Your task to perform on an android device: What is the news today? Image 0: 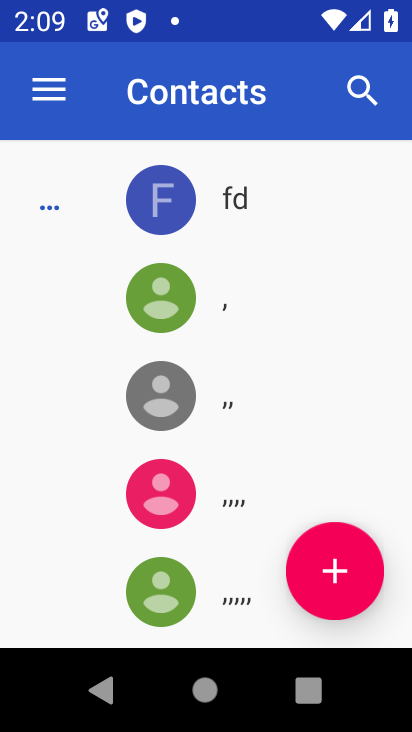
Step 0: press home button
Your task to perform on an android device: What is the news today? Image 1: 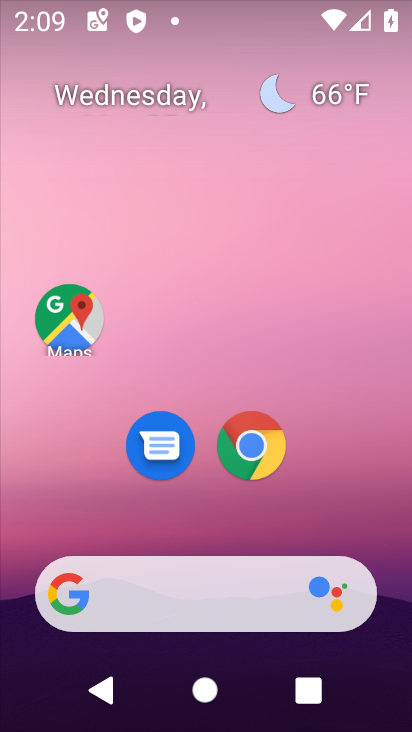
Step 1: click (182, 589)
Your task to perform on an android device: What is the news today? Image 2: 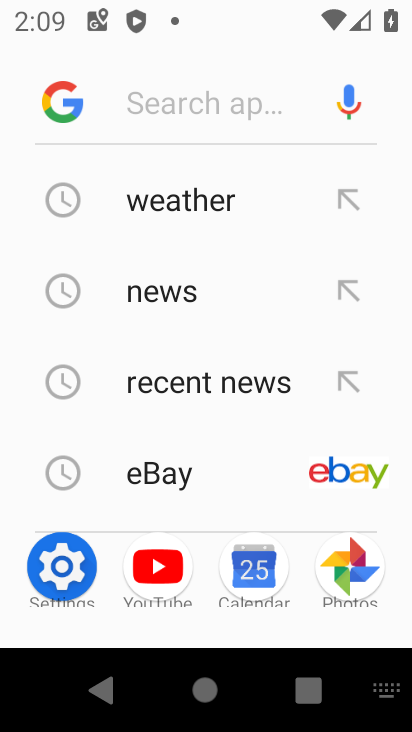
Step 2: click (192, 290)
Your task to perform on an android device: What is the news today? Image 3: 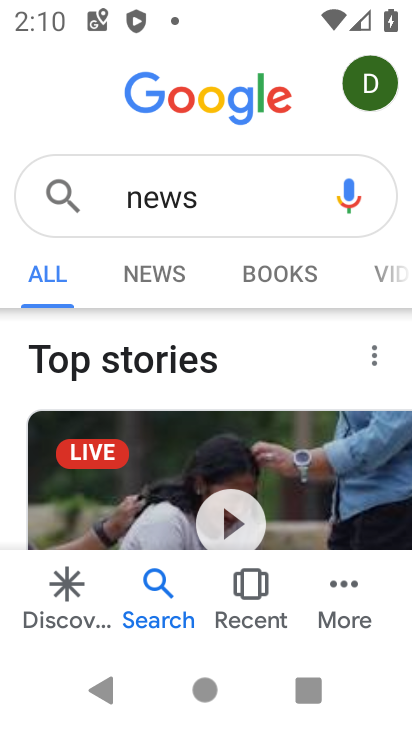
Step 3: task complete